Your task to perform on an android device: What's the weather going to be this weekend? Image 0: 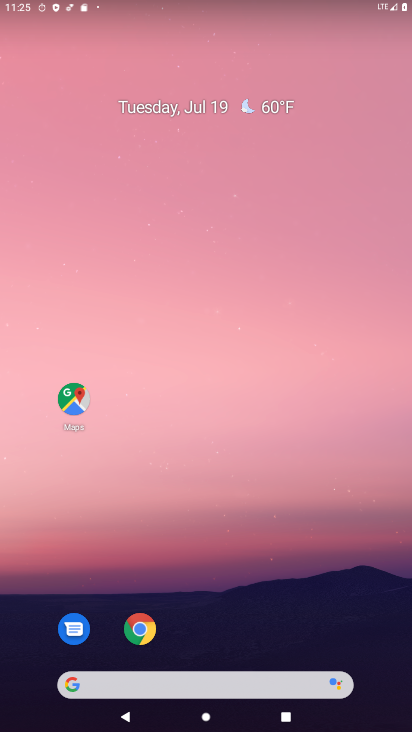
Step 0: drag from (289, 619) to (299, 43)
Your task to perform on an android device: What's the weather going to be this weekend? Image 1: 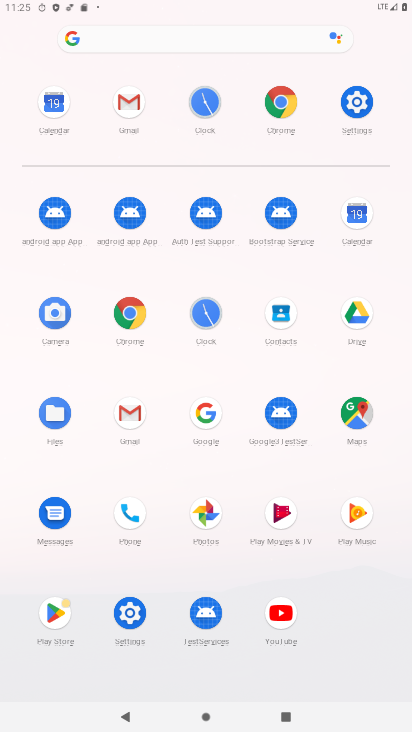
Step 1: click (278, 100)
Your task to perform on an android device: What's the weather going to be this weekend? Image 2: 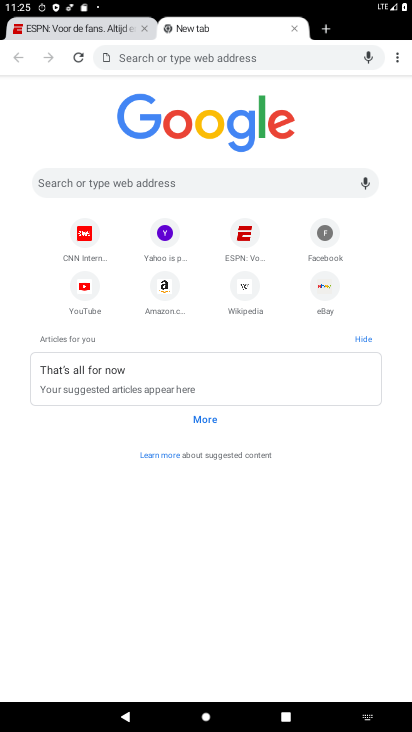
Step 2: click (259, 60)
Your task to perform on an android device: What's the weather going to be this weekend? Image 3: 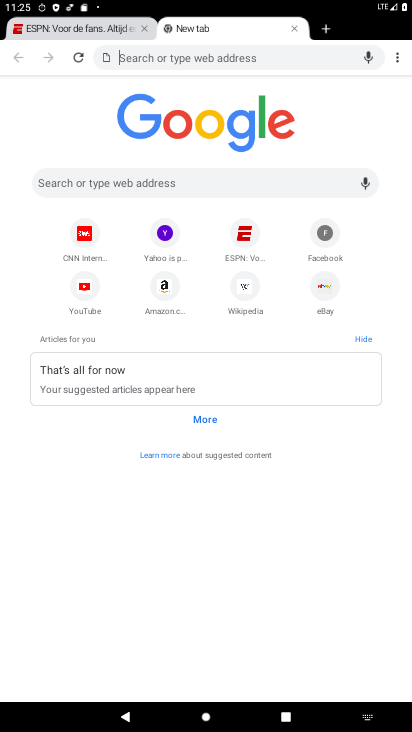
Step 3: type "weather"
Your task to perform on an android device: What's the weather going to be this weekend? Image 4: 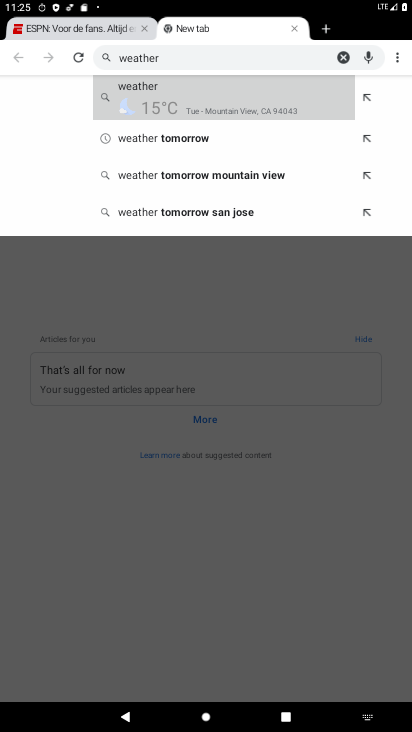
Step 4: click (266, 105)
Your task to perform on an android device: What's the weather going to be this weekend? Image 5: 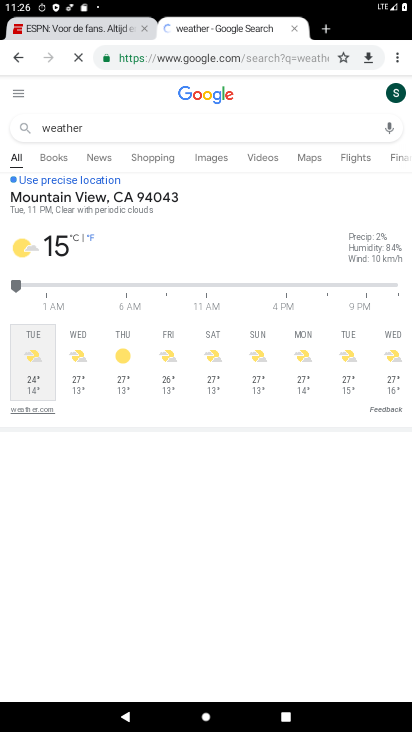
Step 5: click (211, 352)
Your task to perform on an android device: What's the weather going to be this weekend? Image 6: 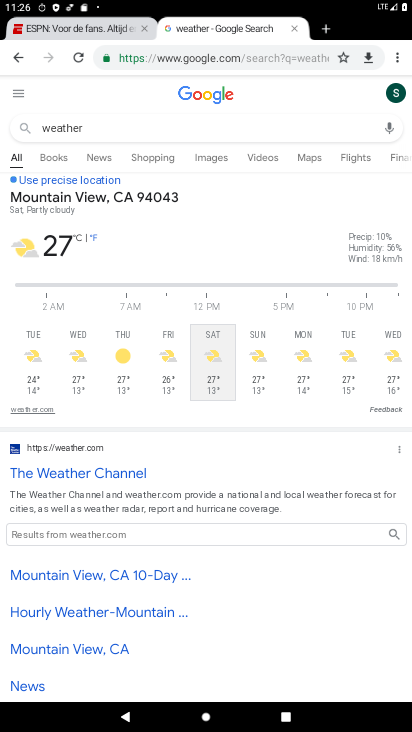
Step 6: task complete